Your task to perform on an android device: Show me productivity apps on the Play Store Image 0: 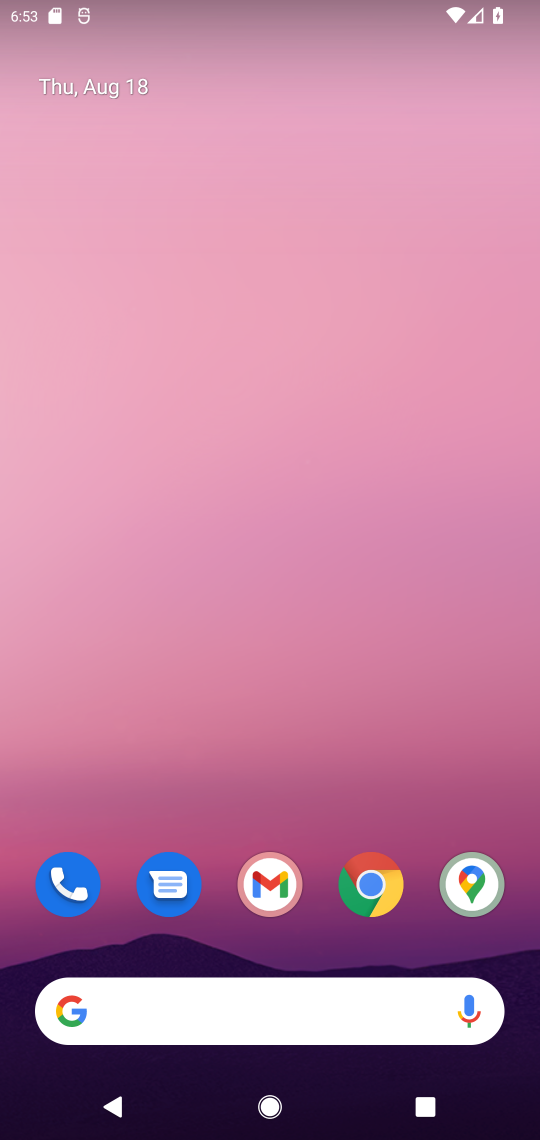
Step 0: drag from (278, 951) to (333, 197)
Your task to perform on an android device: Show me productivity apps on the Play Store Image 1: 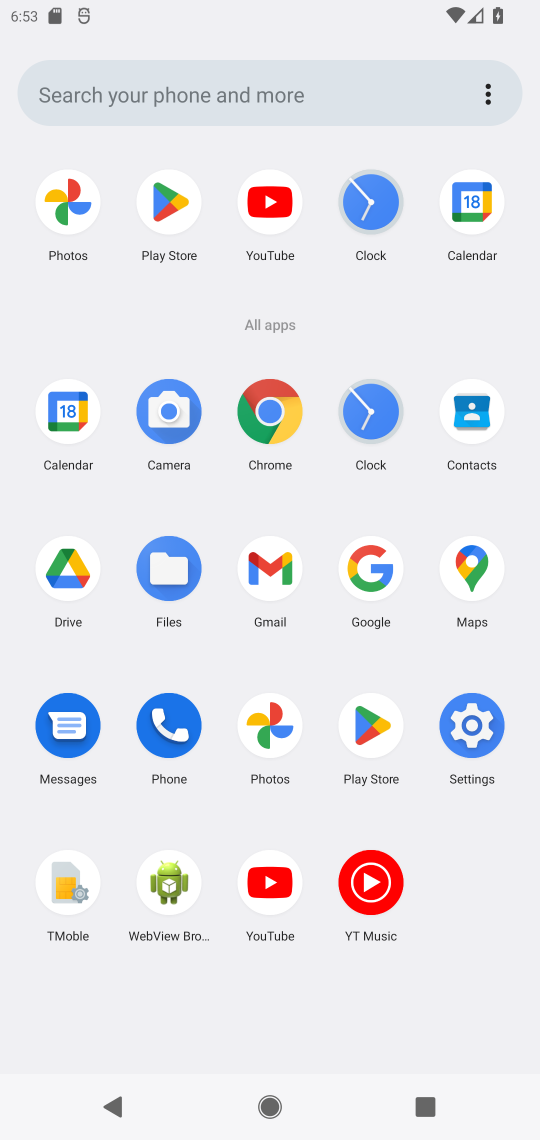
Step 1: click (375, 739)
Your task to perform on an android device: Show me productivity apps on the Play Store Image 2: 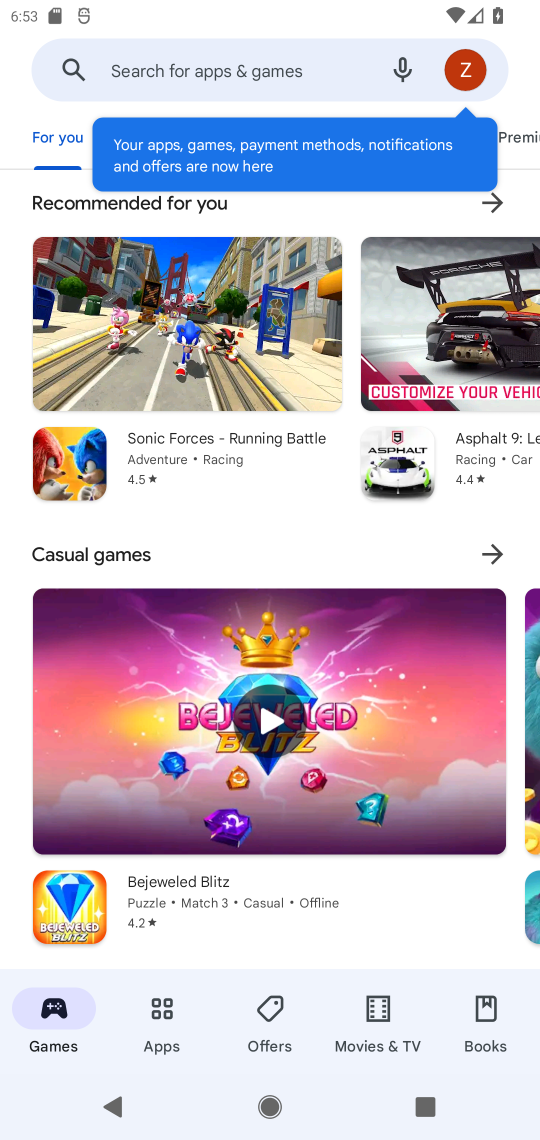
Step 2: click (161, 1016)
Your task to perform on an android device: Show me productivity apps on the Play Store Image 3: 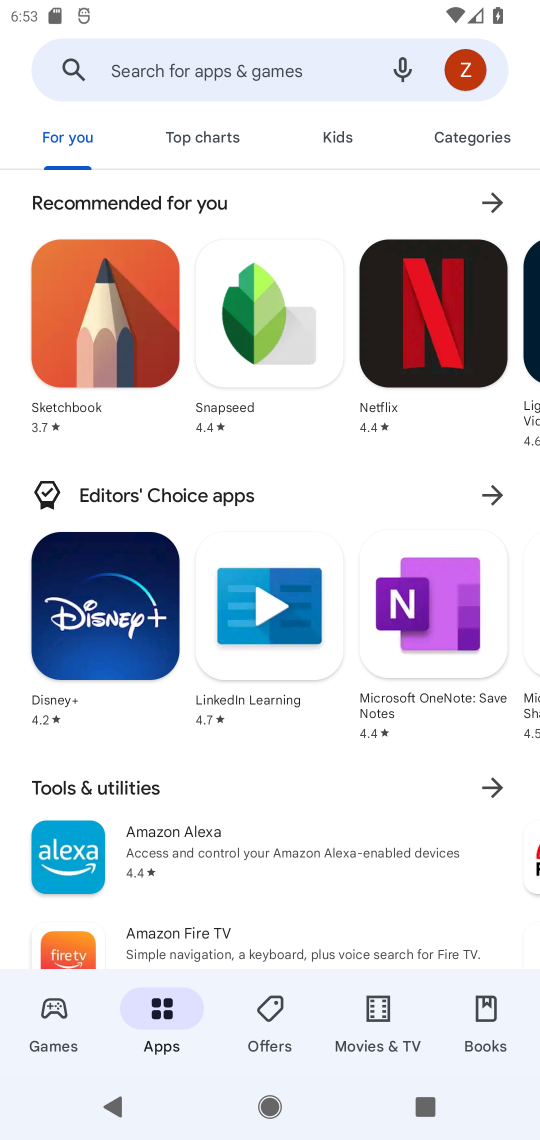
Step 3: click (473, 133)
Your task to perform on an android device: Show me productivity apps on the Play Store Image 4: 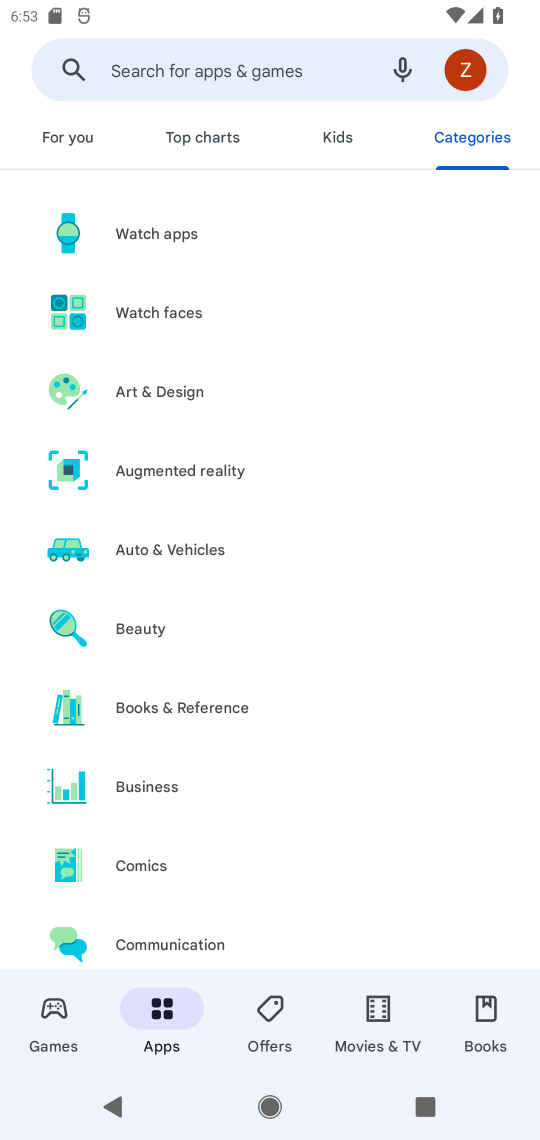
Step 4: drag from (236, 891) to (280, 540)
Your task to perform on an android device: Show me productivity apps on the Play Store Image 5: 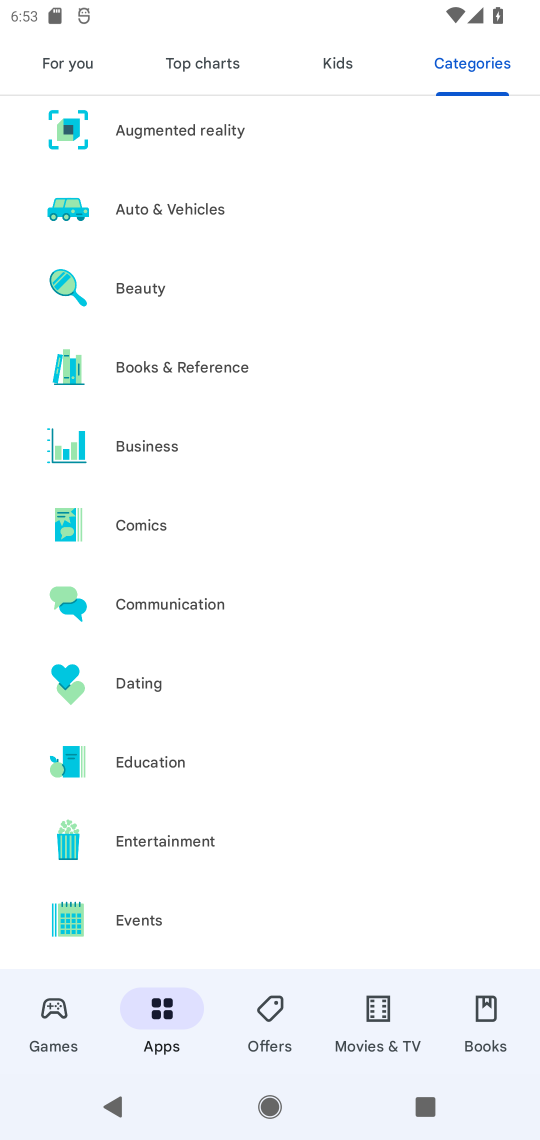
Step 5: drag from (275, 927) to (253, 249)
Your task to perform on an android device: Show me productivity apps on the Play Store Image 6: 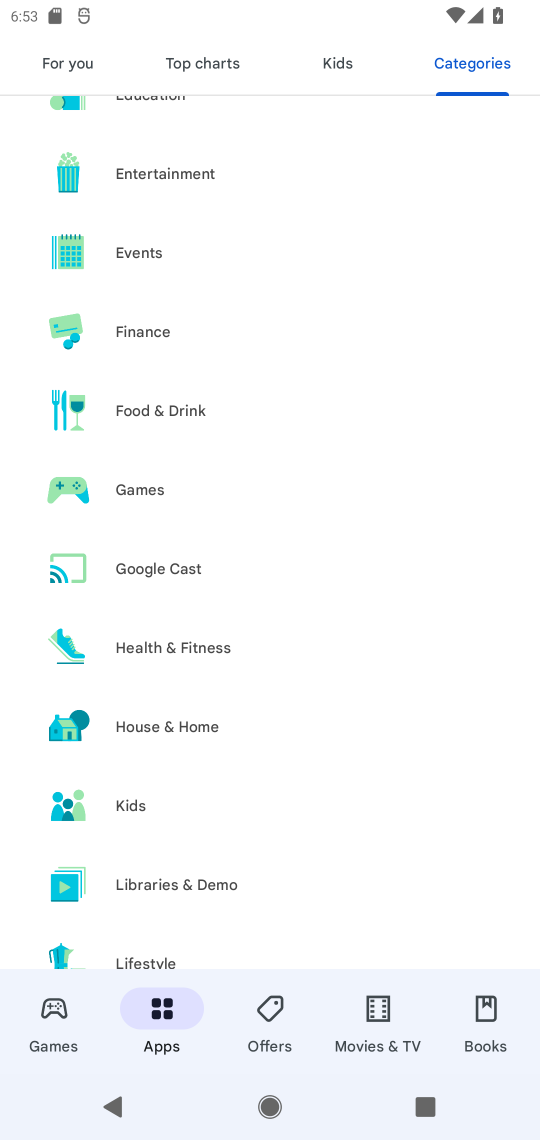
Step 6: drag from (203, 931) to (433, 199)
Your task to perform on an android device: Show me productivity apps on the Play Store Image 7: 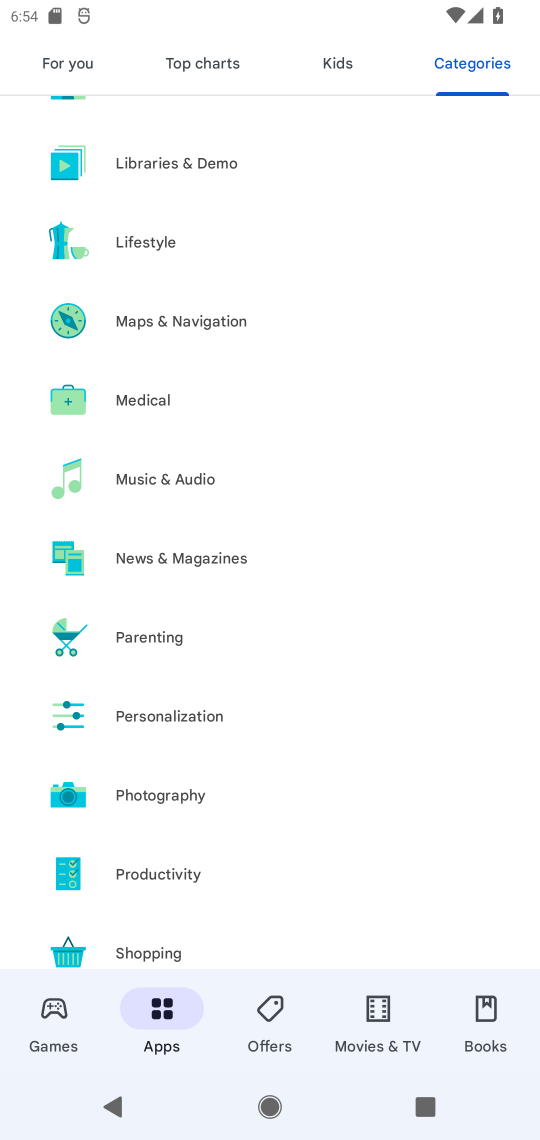
Step 7: click (201, 880)
Your task to perform on an android device: Show me productivity apps on the Play Store Image 8: 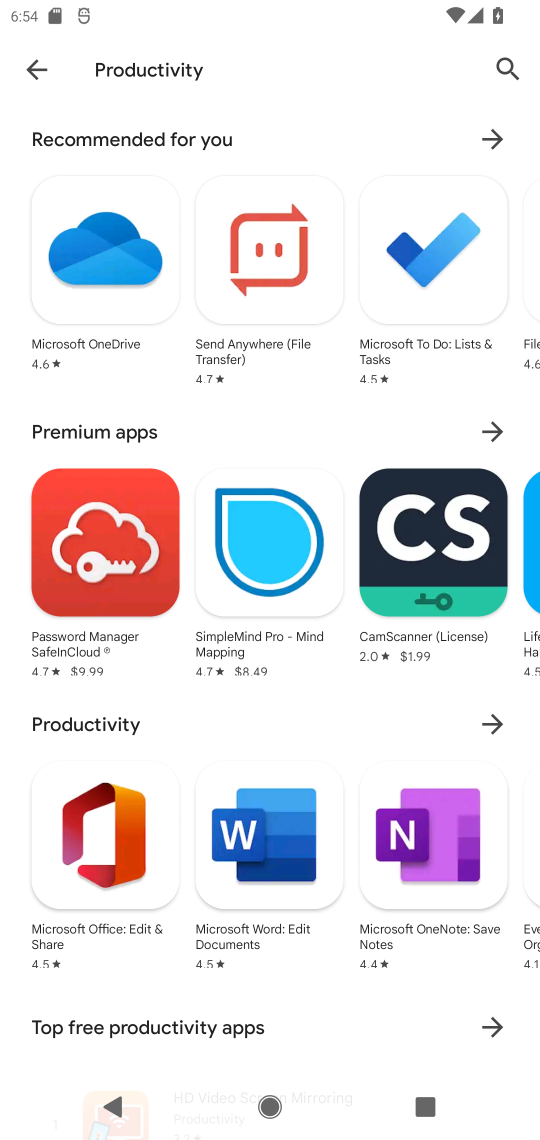
Step 8: task complete